Your task to perform on an android device: What's the weather? Image 0: 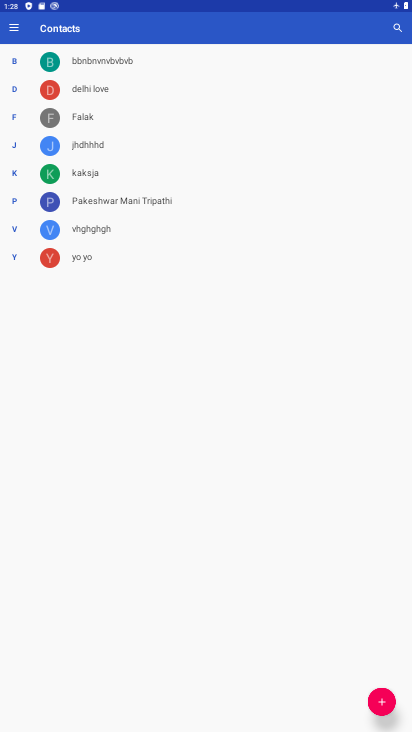
Step 0: press home button
Your task to perform on an android device: What's the weather? Image 1: 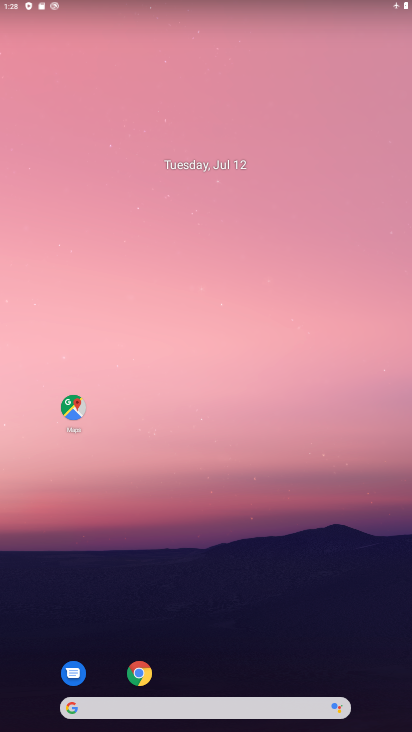
Step 1: drag from (184, 557) to (215, 287)
Your task to perform on an android device: What's the weather? Image 2: 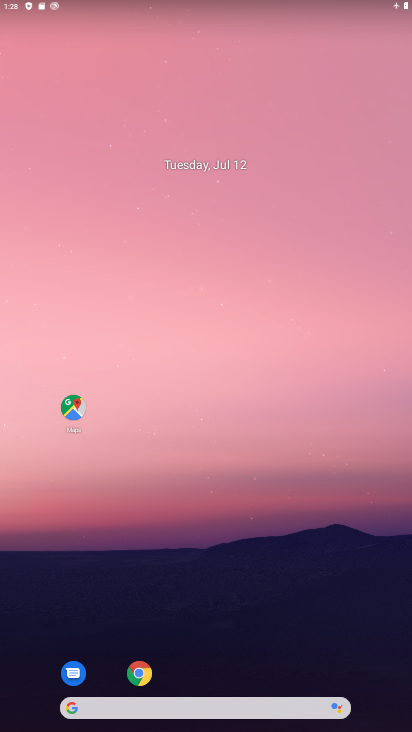
Step 2: drag from (210, 576) to (243, 129)
Your task to perform on an android device: What's the weather? Image 3: 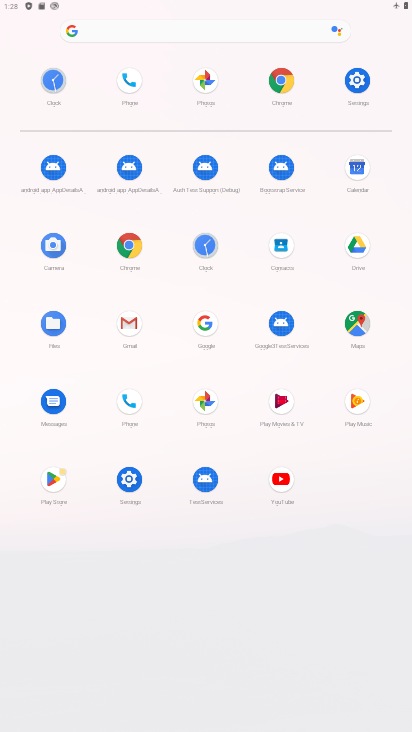
Step 3: click (139, 233)
Your task to perform on an android device: What's the weather? Image 4: 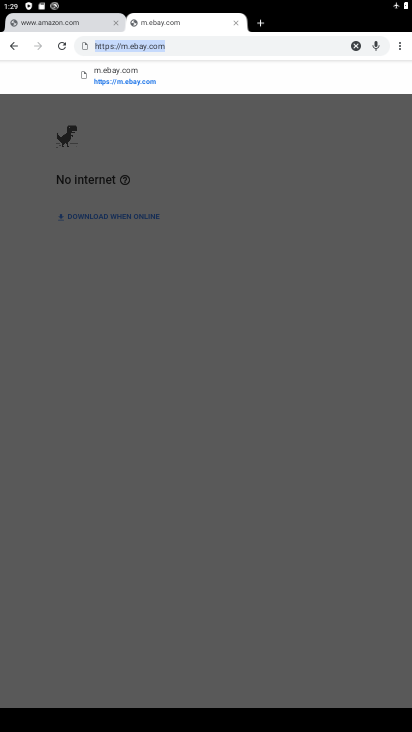
Step 4: task complete